Your task to perform on an android device: Open Youtube and go to the subscriptions tab Image 0: 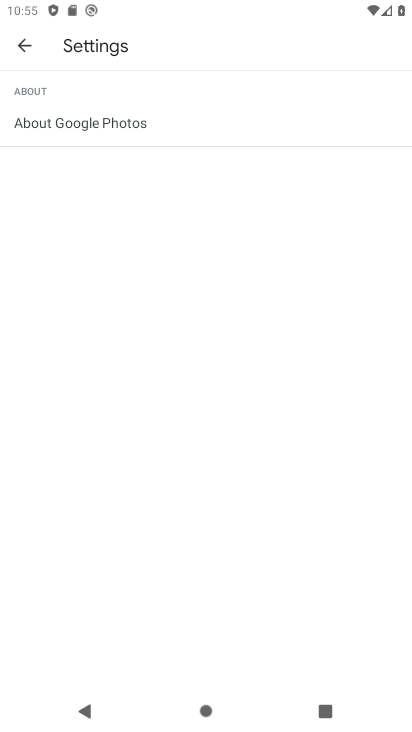
Step 0: press home button
Your task to perform on an android device: Open Youtube and go to the subscriptions tab Image 1: 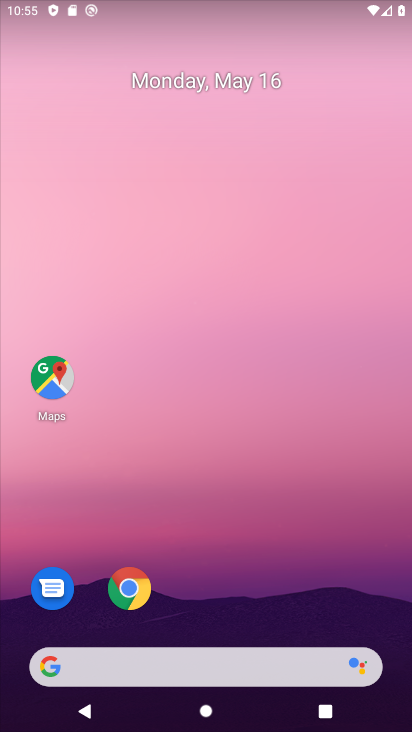
Step 1: drag from (387, 620) to (386, 142)
Your task to perform on an android device: Open Youtube and go to the subscriptions tab Image 2: 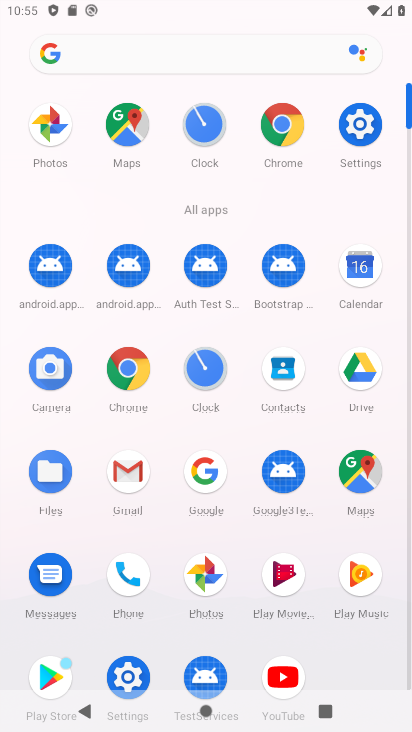
Step 2: drag from (376, 644) to (376, 480)
Your task to perform on an android device: Open Youtube and go to the subscriptions tab Image 3: 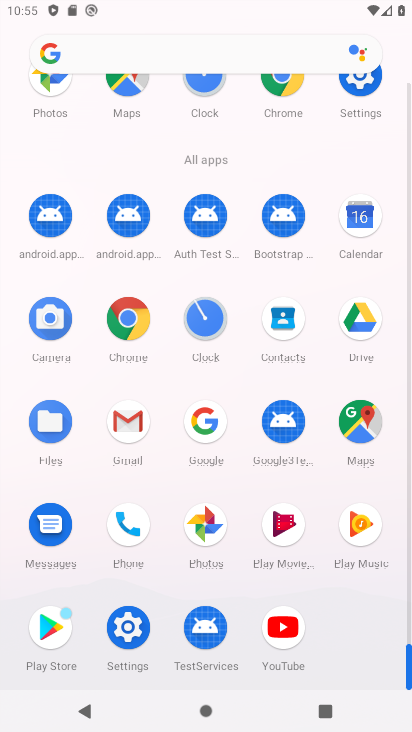
Step 3: click (283, 627)
Your task to perform on an android device: Open Youtube and go to the subscriptions tab Image 4: 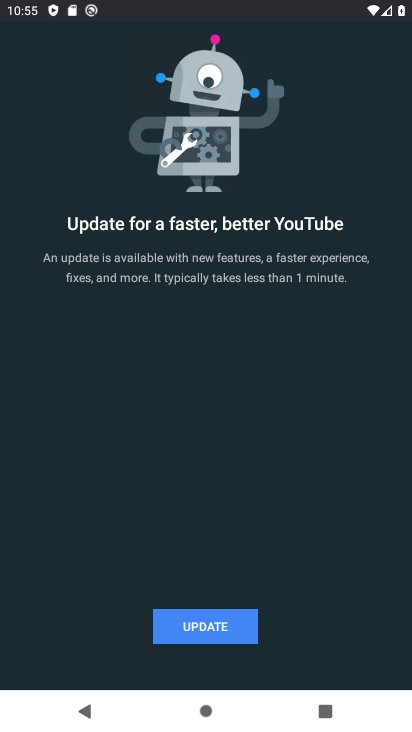
Step 4: click (240, 634)
Your task to perform on an android device: Open Youtube and go to the subscriptions tab Image 5: 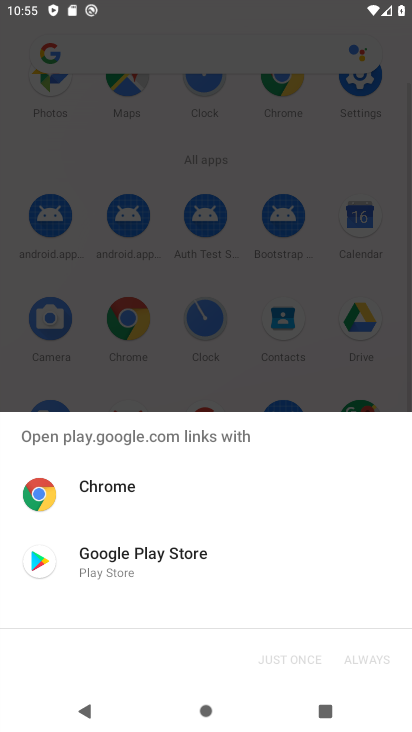
Step 5: click (166, 576)
Your task to perform on an android device: Open Youtube and go to the subscriptions tab Image 6: 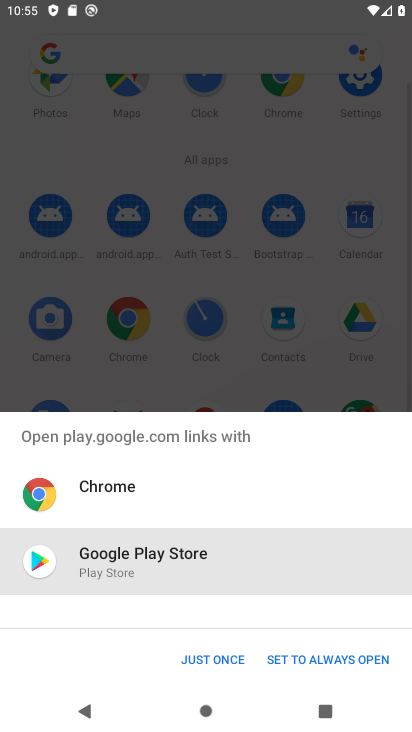
Step 6: click (219, 658)
Your task to perform on an android device: Open Youtube and go to the subscriptions tab Image 7: 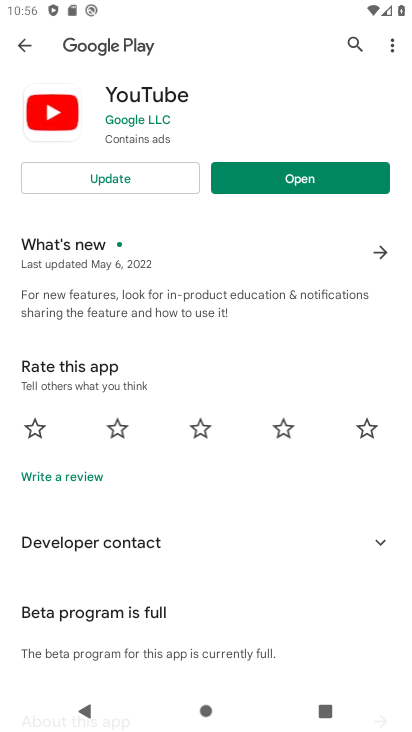
Step 7: click (99, 172)
Your task to perform on an android device: Open Youtube and go to the subscriptions tab Image 8: 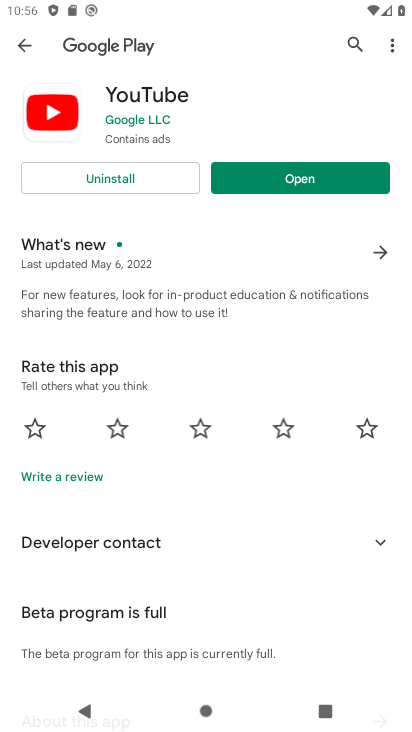
Step 8: click (310, 174)
Your task to perform on an android device: Open Youtube and go to the subscriptions tab Image 9: 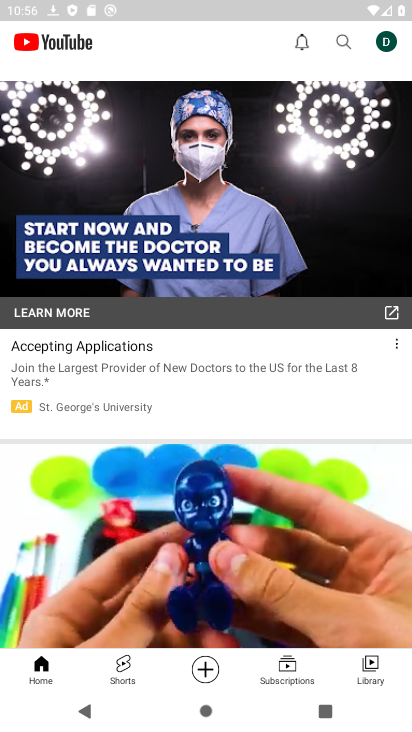
Step 9: click (297, 663)
Your task to perform on an android device: Open Youtube and go to the subscriptions tab Image 10: 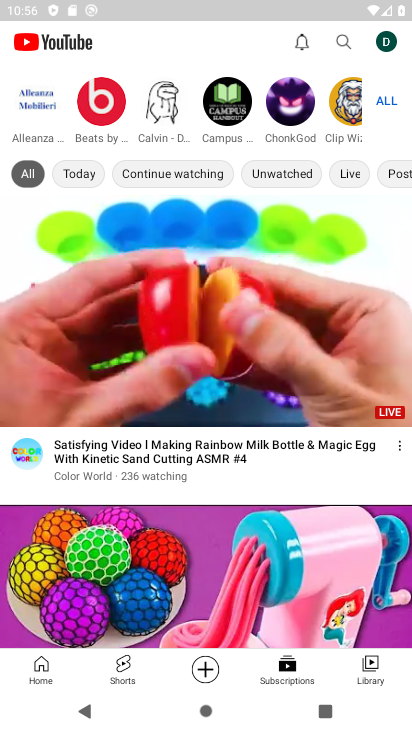
Step 10: task complete